Your task to perform on an android device: turn pop-ups off in chrome Image 0: 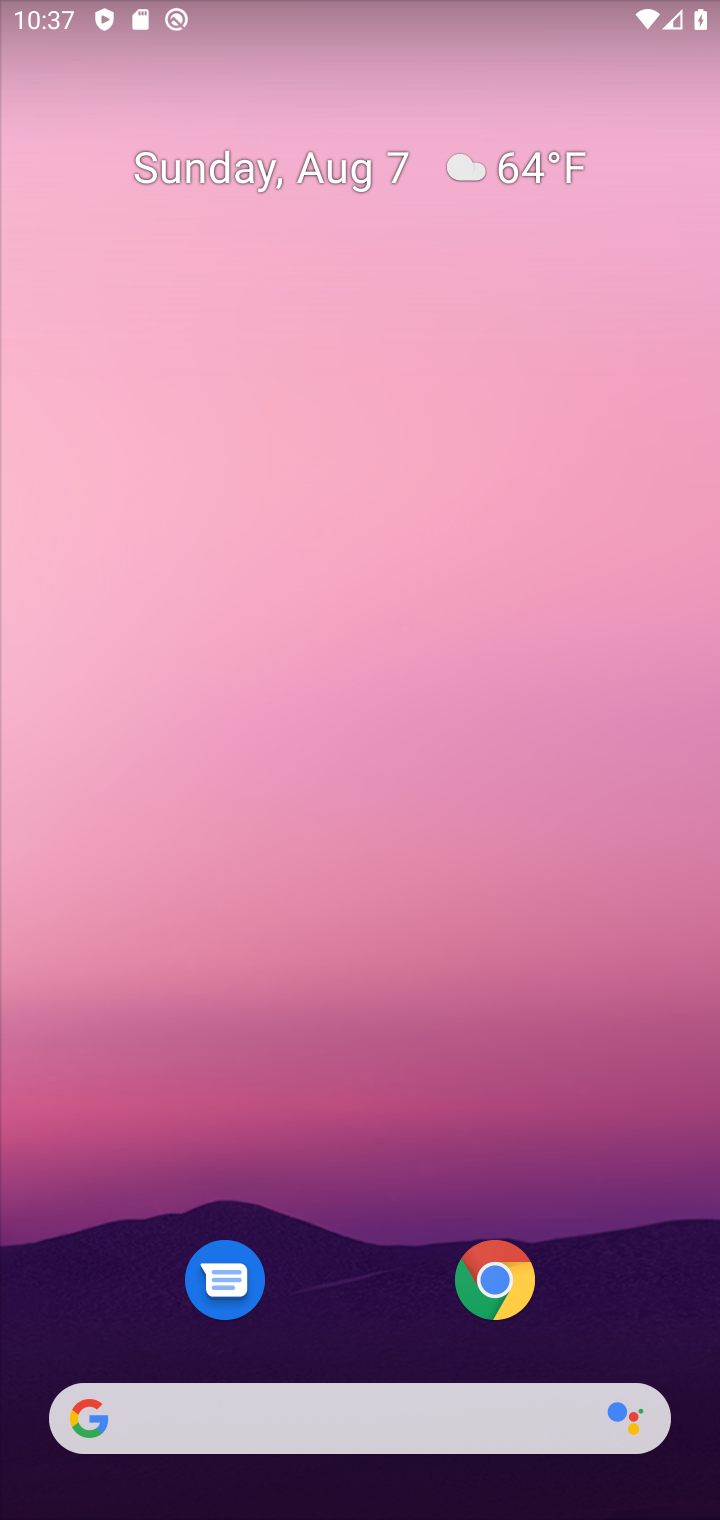
Step 0: click (497, 1280)
Your task to perform on an android device: turn pop-ups off in chrome Image 1: 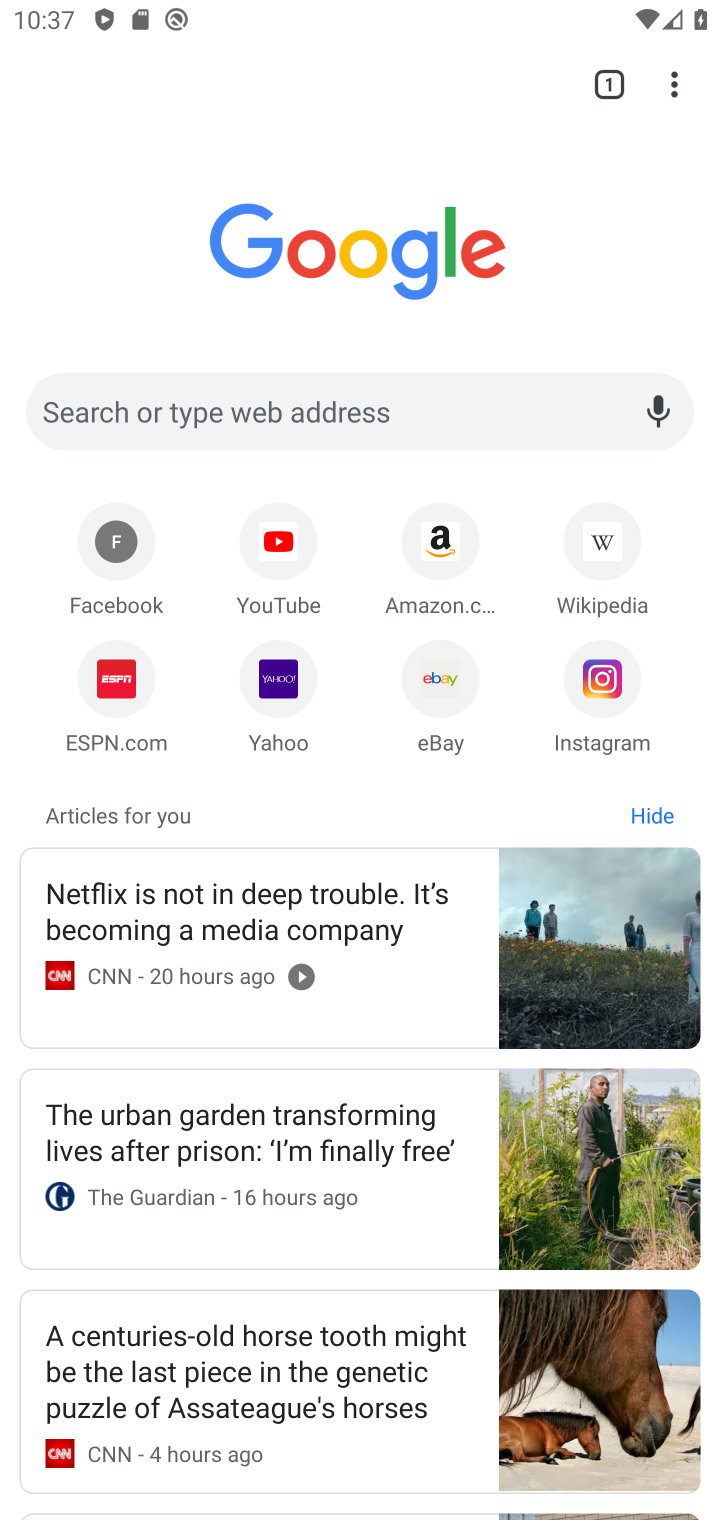
Step 1: press back button
Your task to perform on an android device: turn pop-ups off in chrome Image 2: 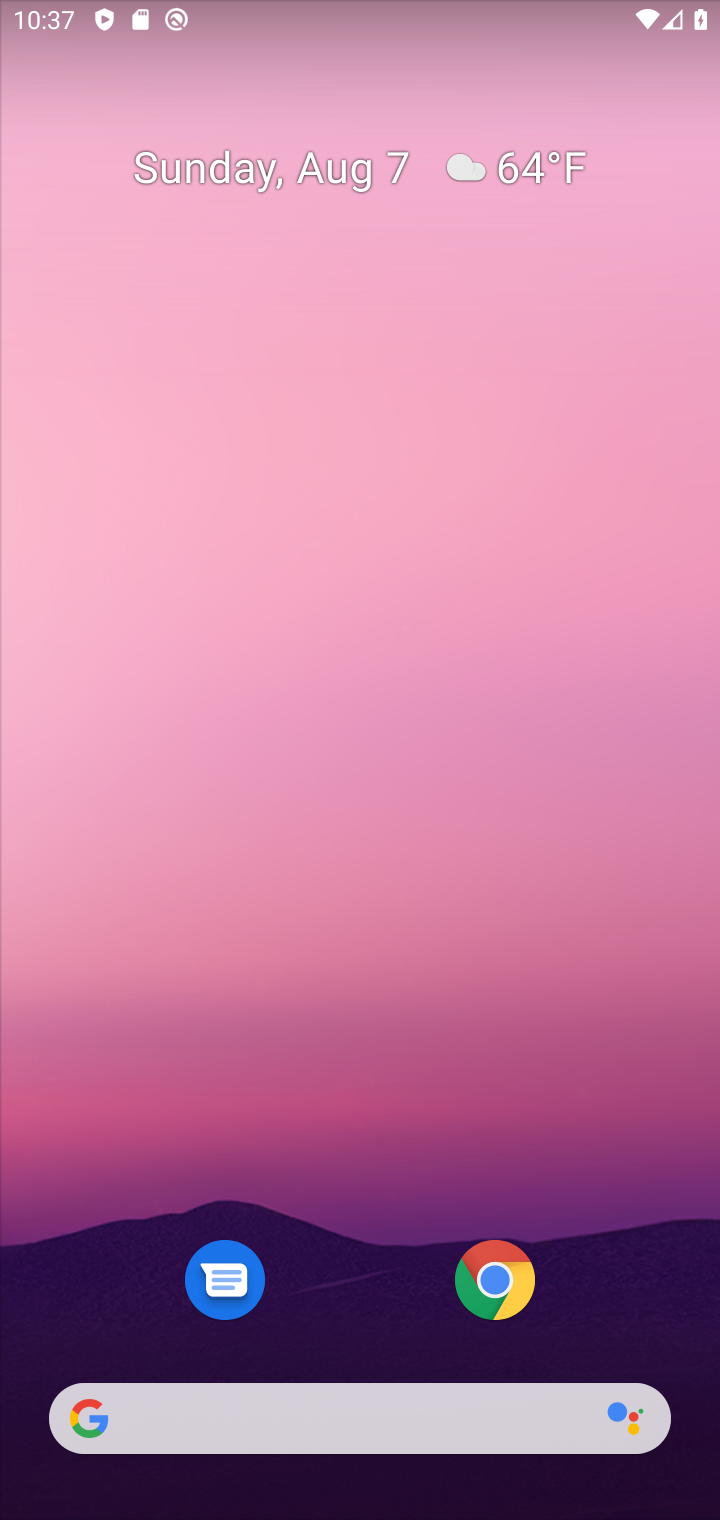
Step 2: click (498, 1281)
Your task to perform on an android device: turn pop-ups off in chrome Image 3: 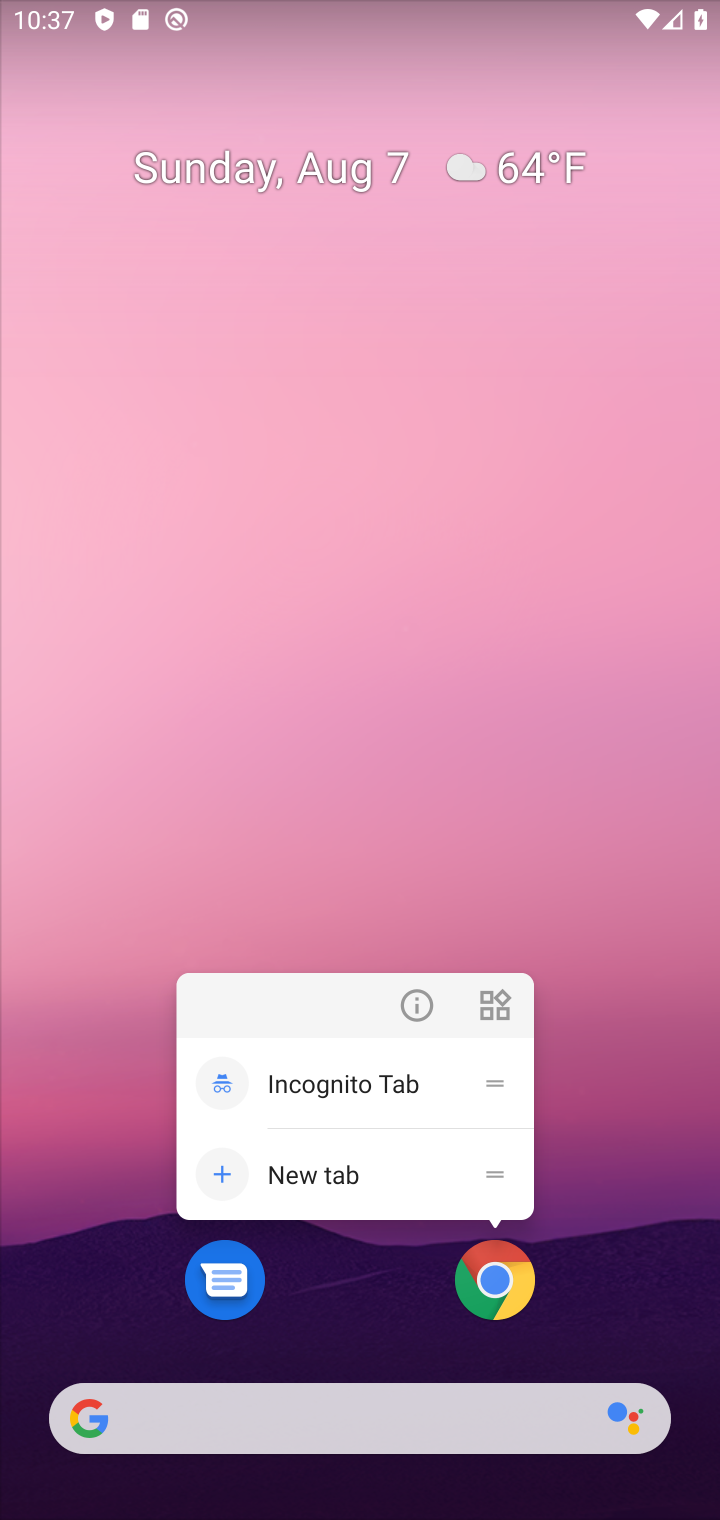
Step 3: click (501, 1279)
Your task to perform on an android device: turn pop-ups off in chrome Image 4: 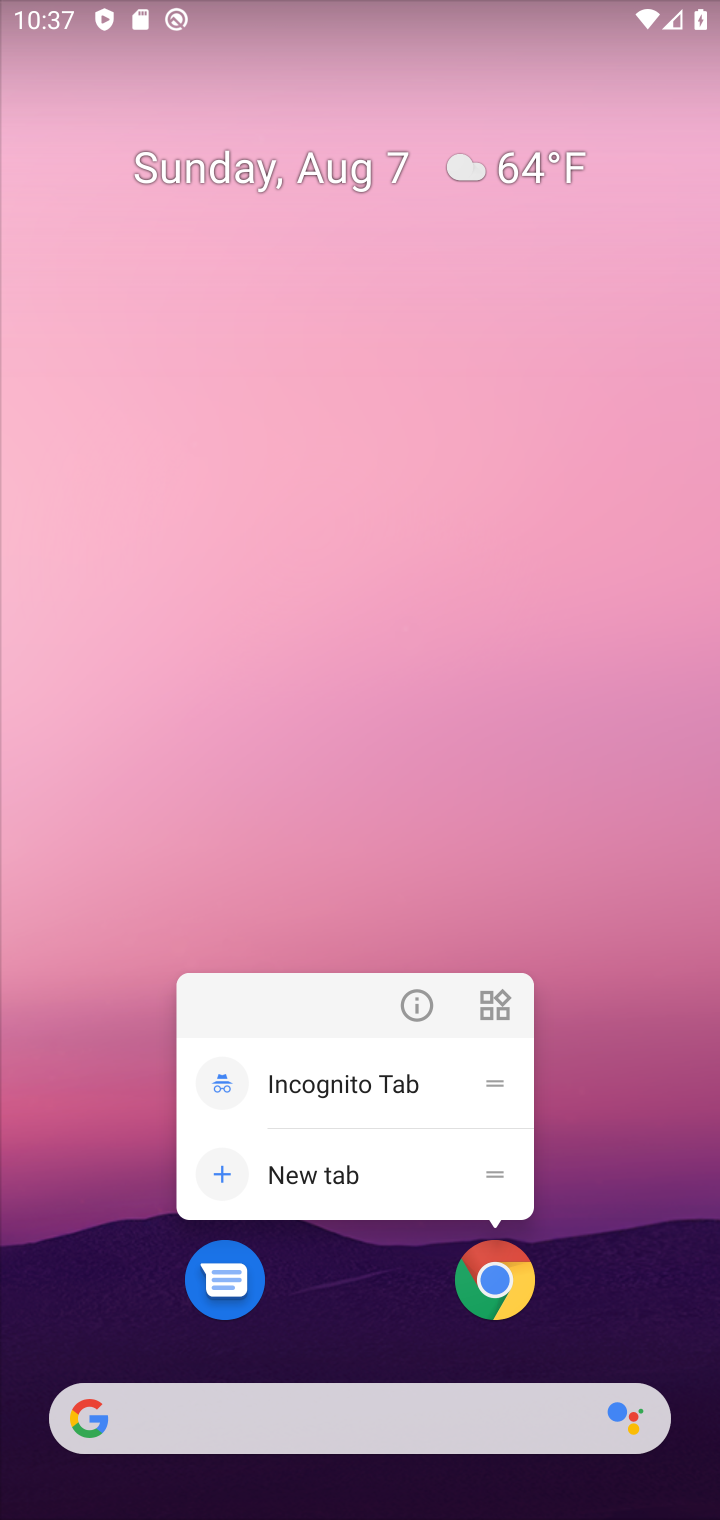
Step 4: click (492, 1288)
Your task to perform on an android device: turn pop-ups off in chrome Image 5: 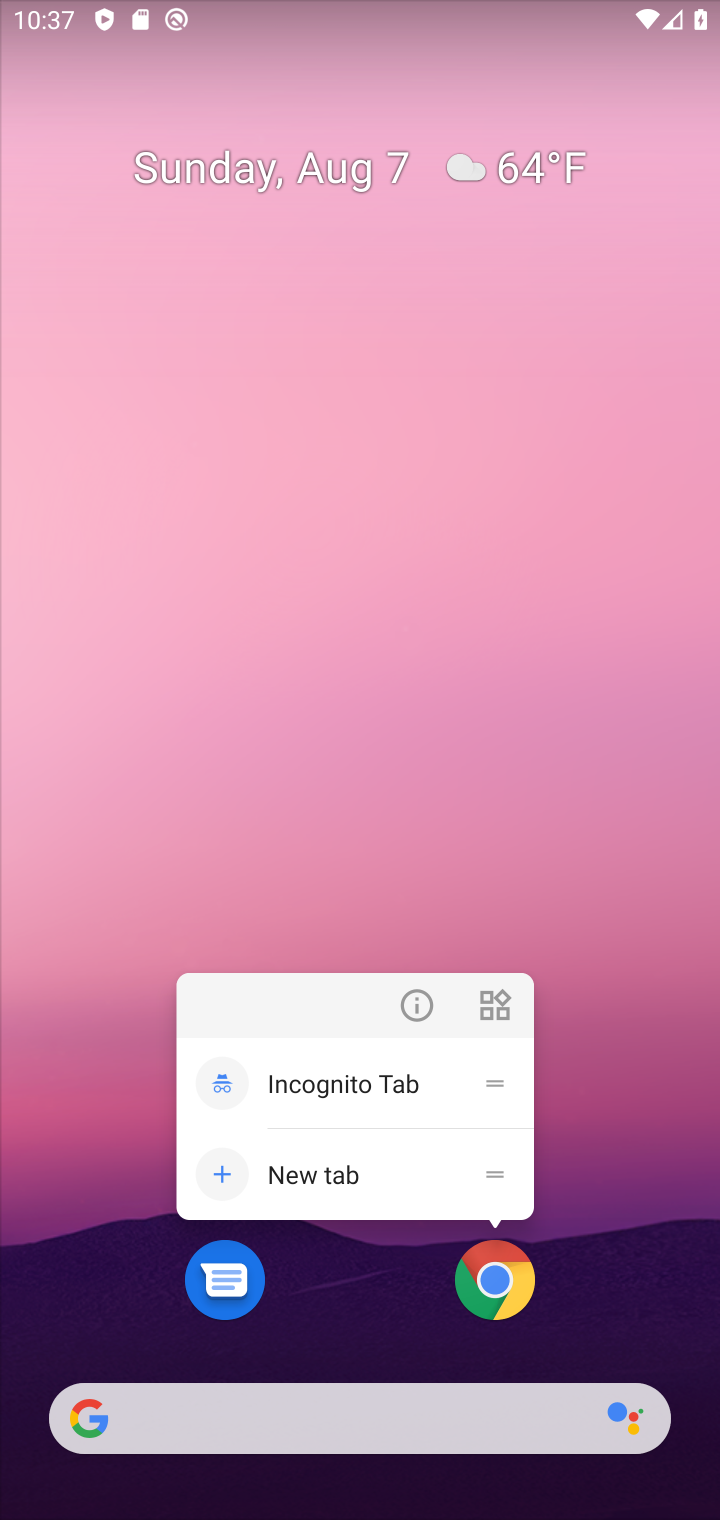
Step 5: click (502, 1273)
Your task to perform on an android device: turn pop-ups off in chrome Image 6: 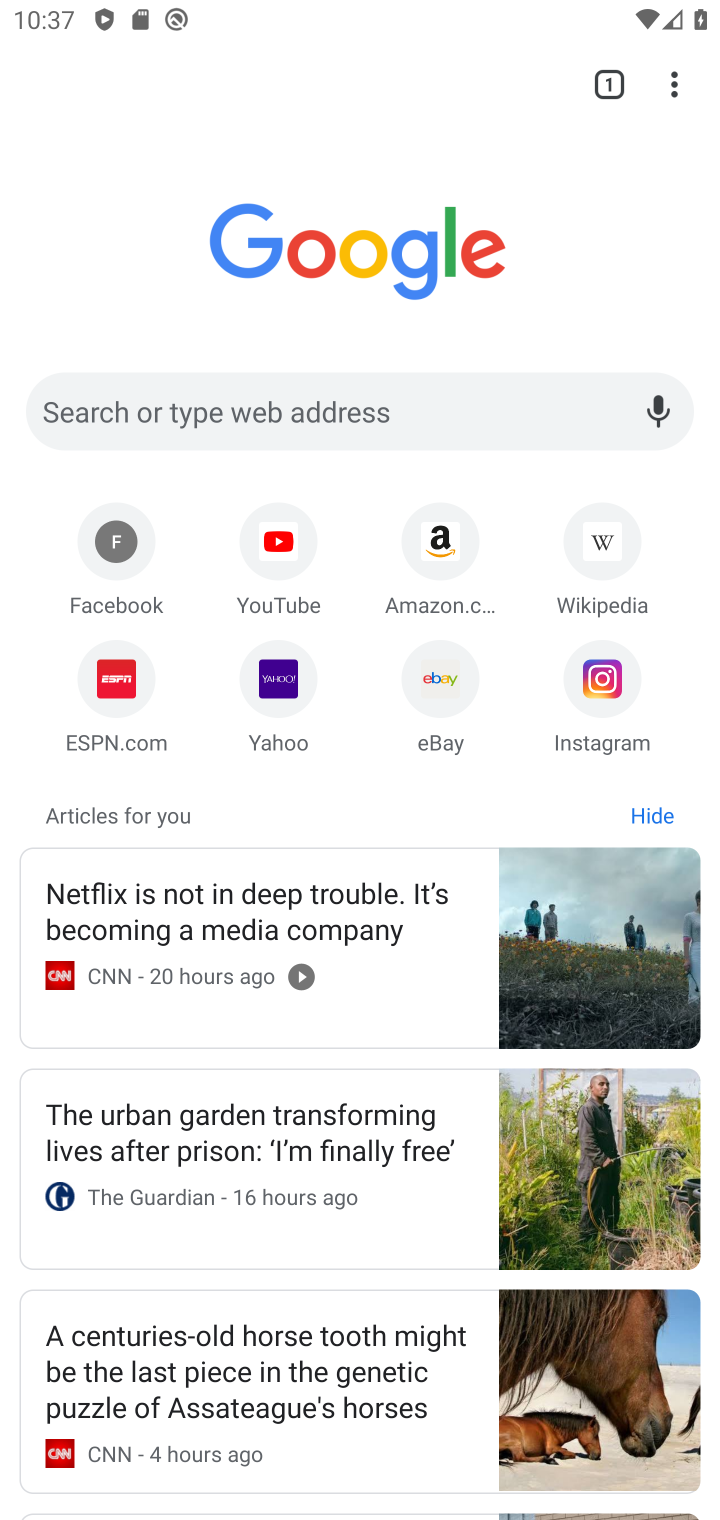
Step 6: drag from (669, 79) to (391, 713)
Your task to perform on an android device: turn pop-ups off in chrome Image 7: 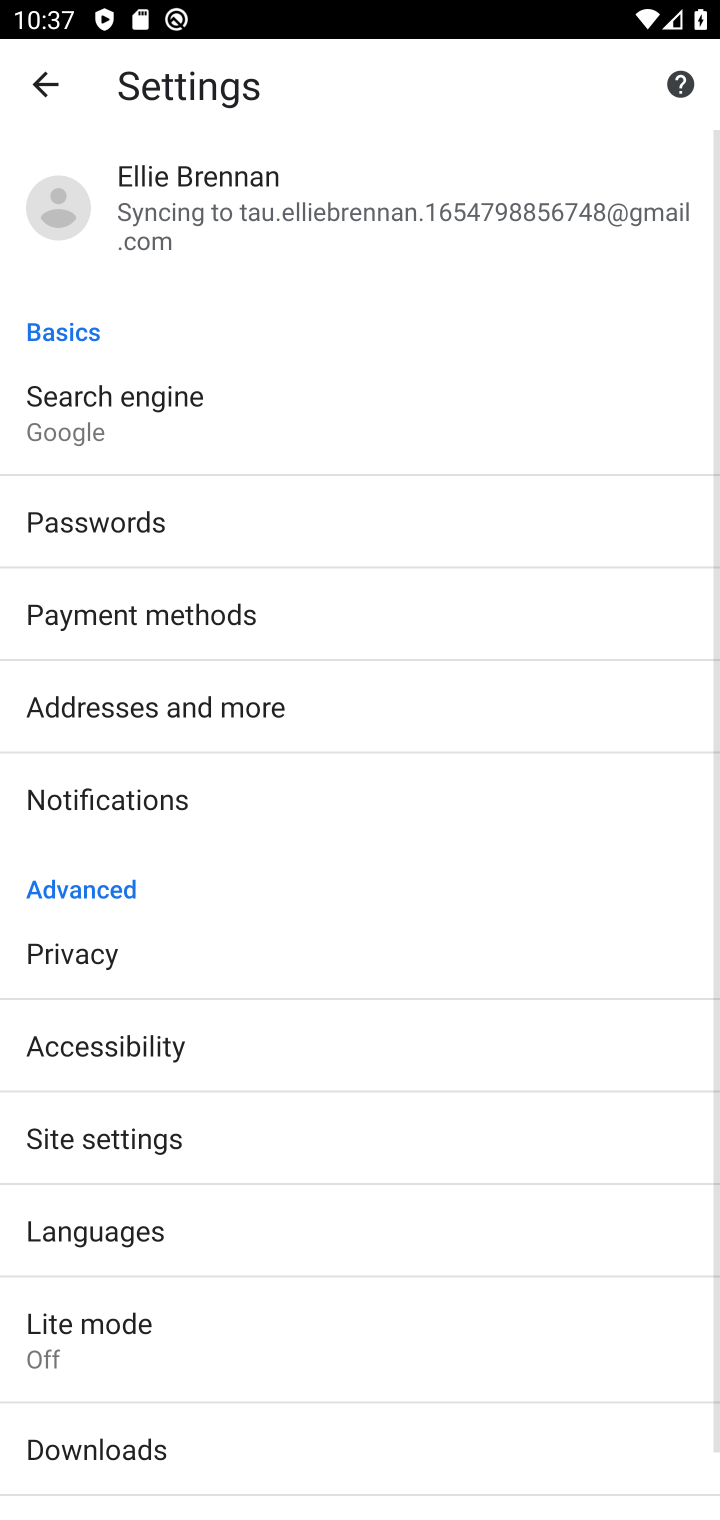
Step 7: drag from (313, 1441) to (510, 369)
Your task to perform on an android device: turn pop-ups off in chrome Image 8: 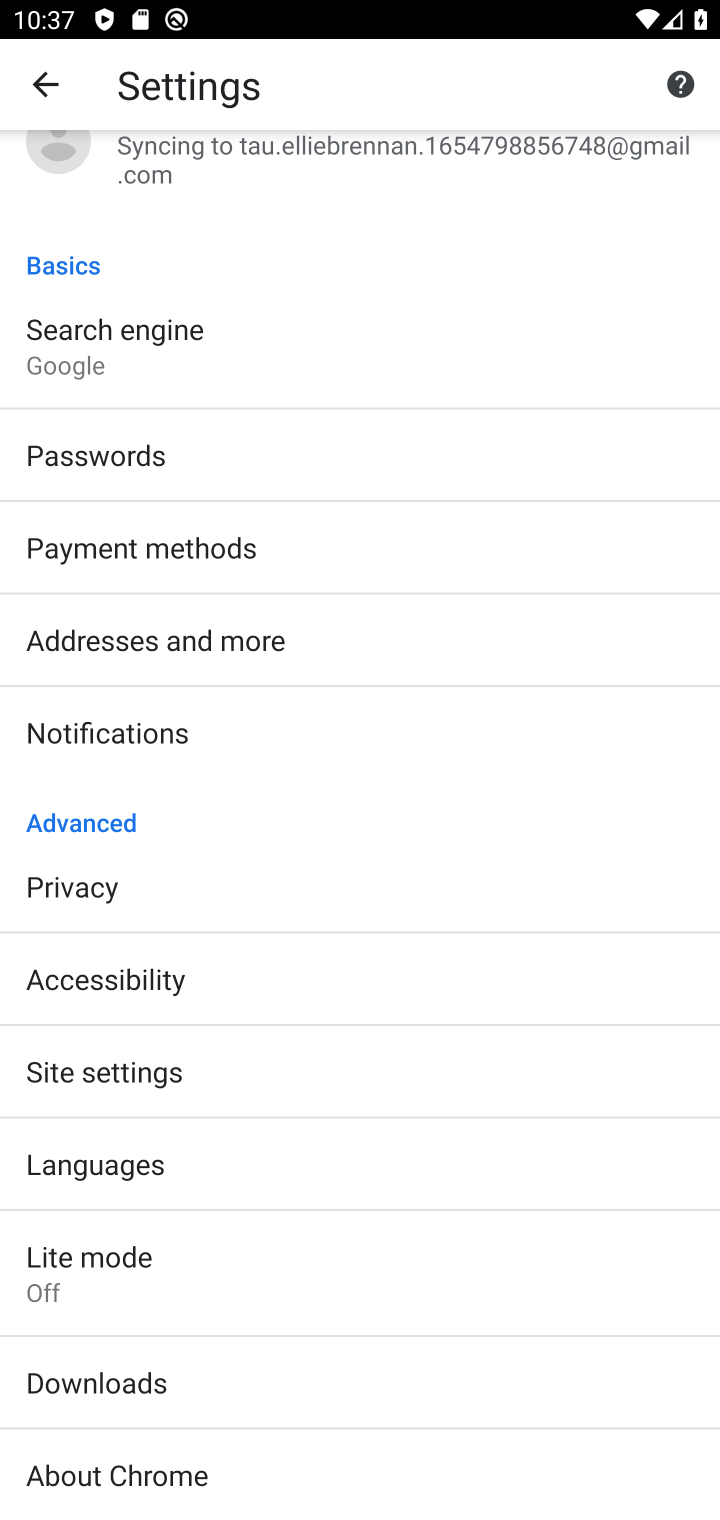
Step 8: click (160, 1061)
Your task to perform on an android device: turn pop-ups off in chrome Image 9: 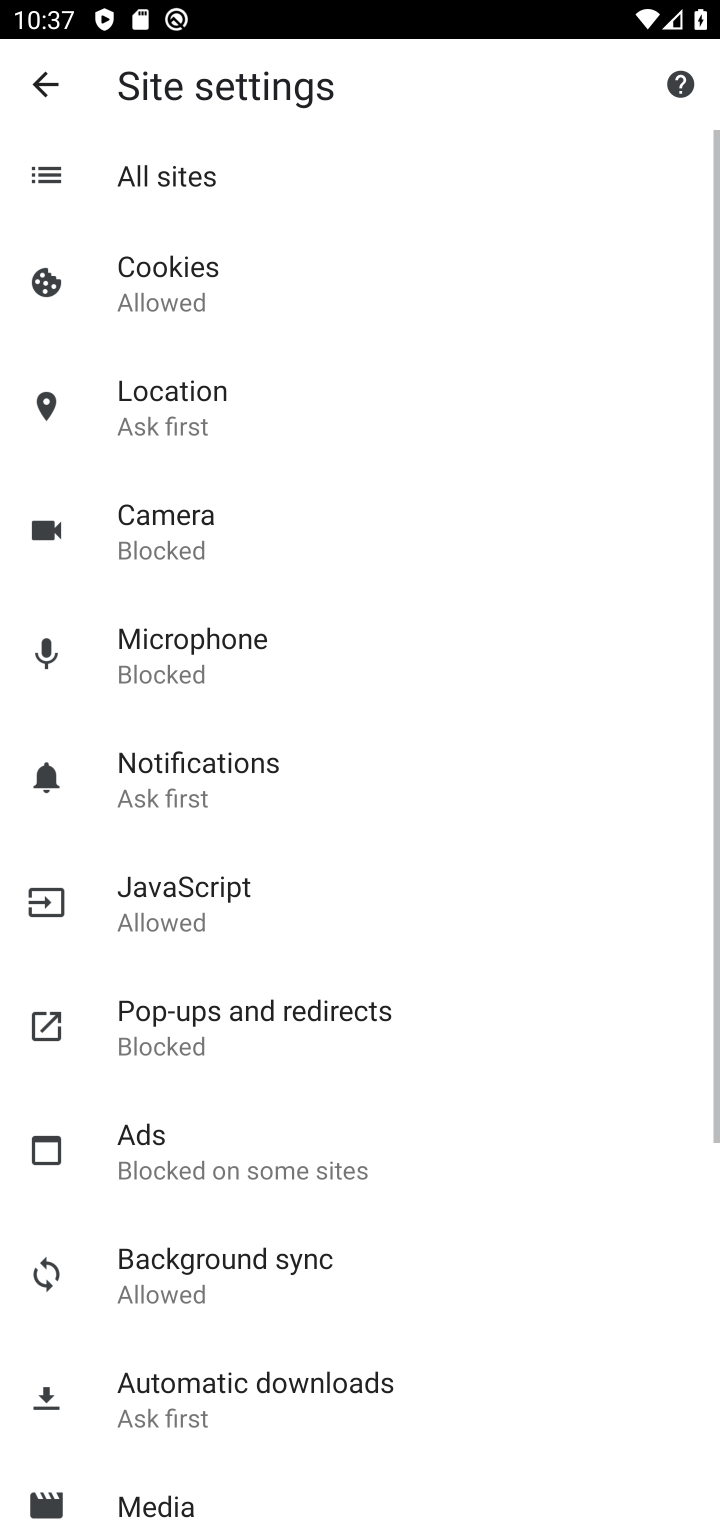
Step 9: click (245, 1031)
Your task to perform on an android device: turn pop-ups off in chrome Image 10: 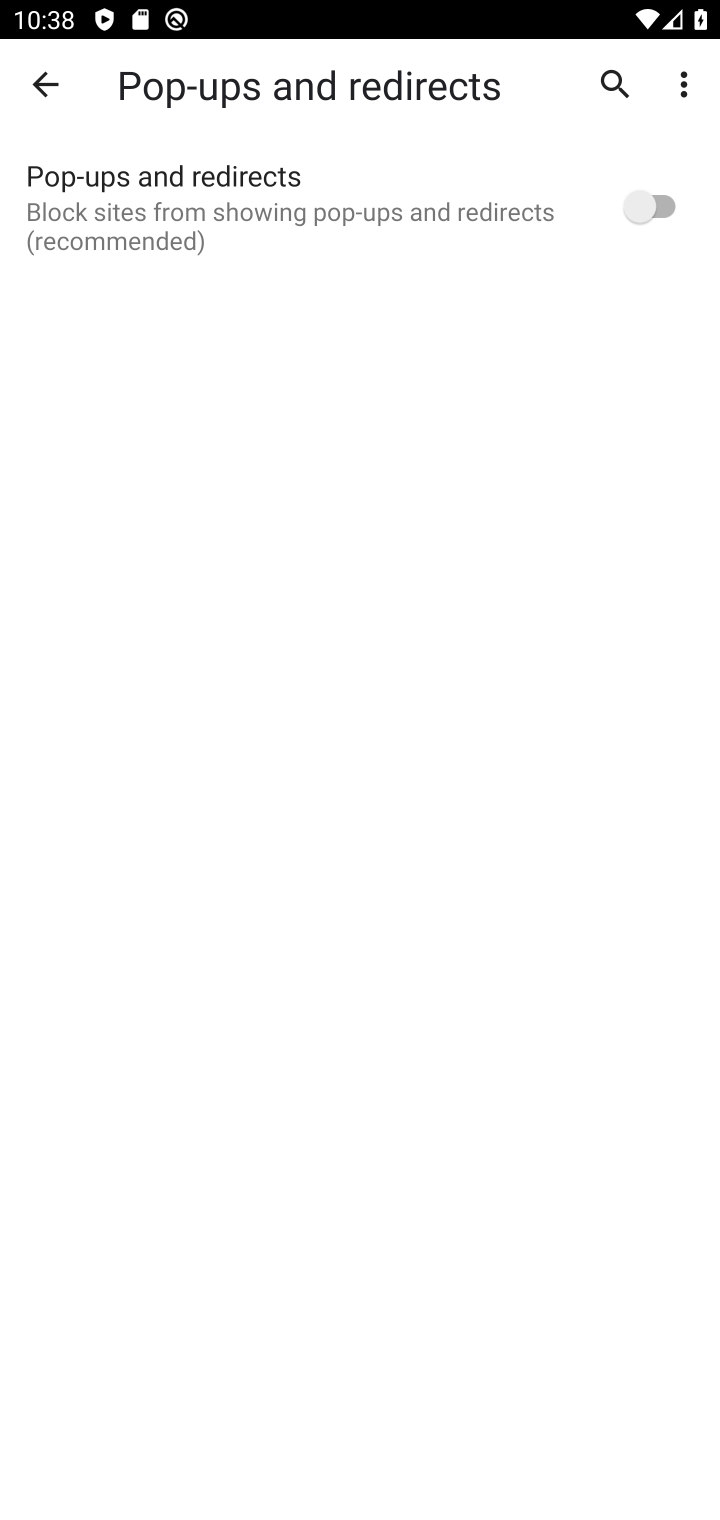
Step 10: task complete